Your task to perform on an android device: open sync settings in chrome Image 0: 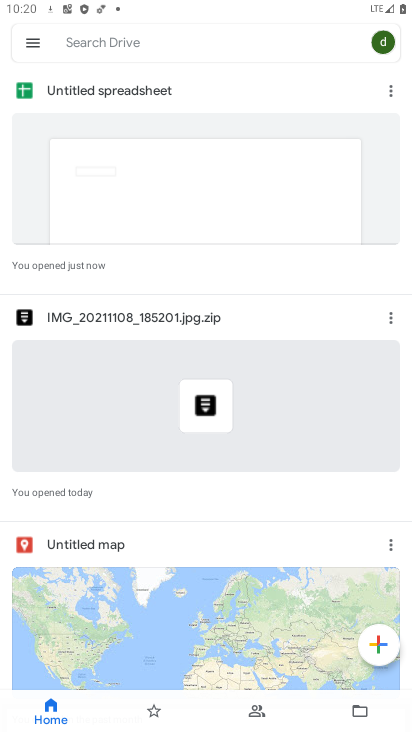
Step 0: press home button
Your task to perform on an android device: open sync settings in chrome Image 1: 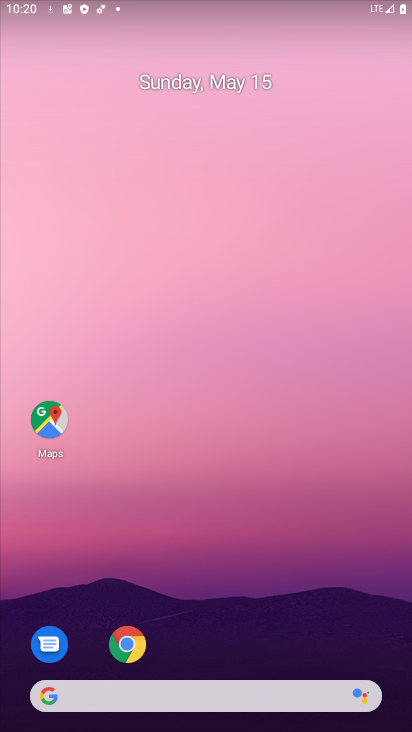
Step 1: drag from (289, 709) to (268, 268)
Your task to perform on an android device: open sync settings in chrome Image 2: 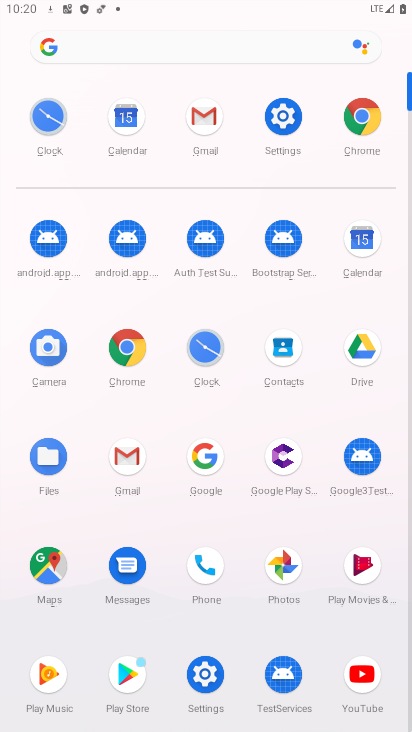
Step 2: click (351, 120)
Your task to perform on an android device: open sync settings in chrome Image 3: 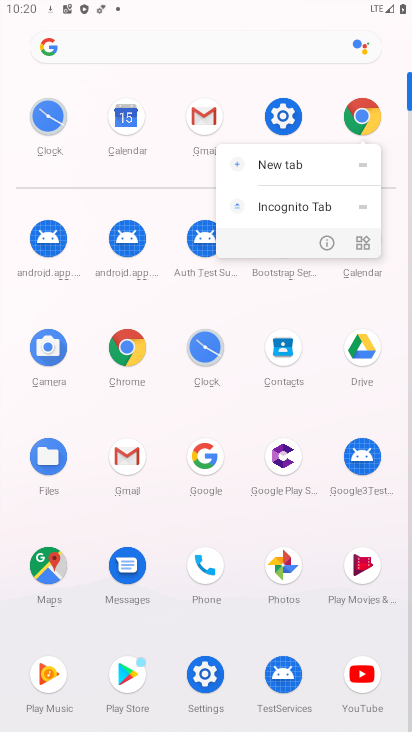
Step 3: click (355, 123)
Your task to perform on an android device: open sync settings in chrome Image 4: 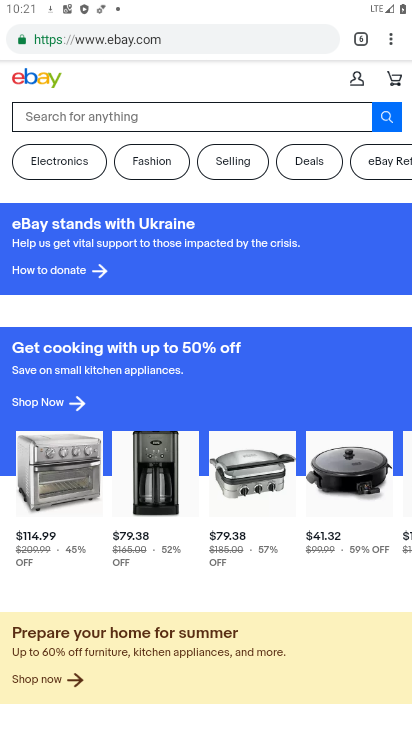
Step 4: click (388, 54)
Your task to perform on an android device: open sync settings in chrome Image 5: 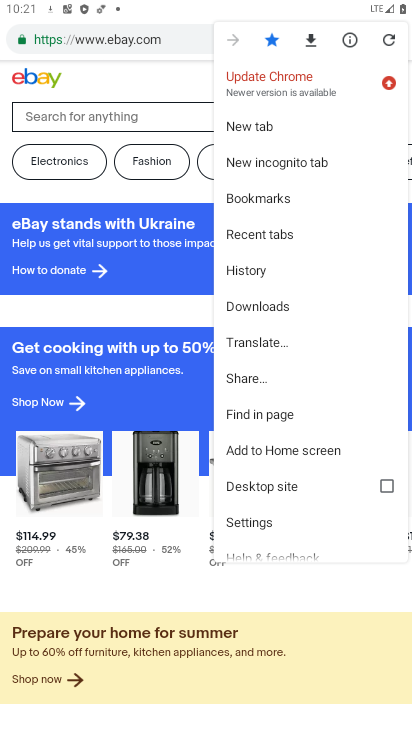
Step 5: click (262, 522)
Your task to perform on an android device: open sync settings in chrome Image 6: 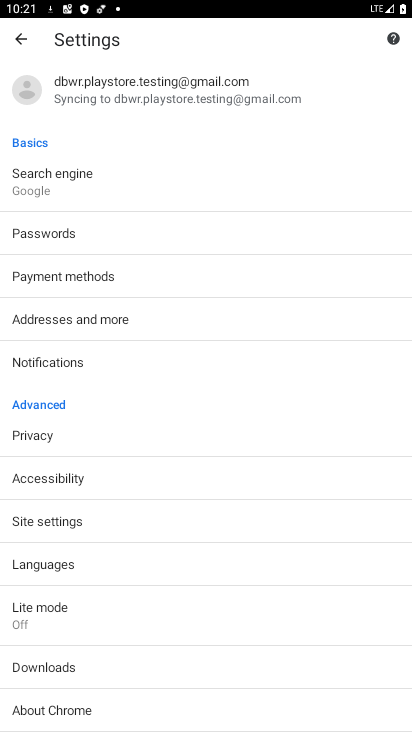
Step 6: click (58, 517)
Your task to perform on an android device: open sync settings in chrome Image 7: 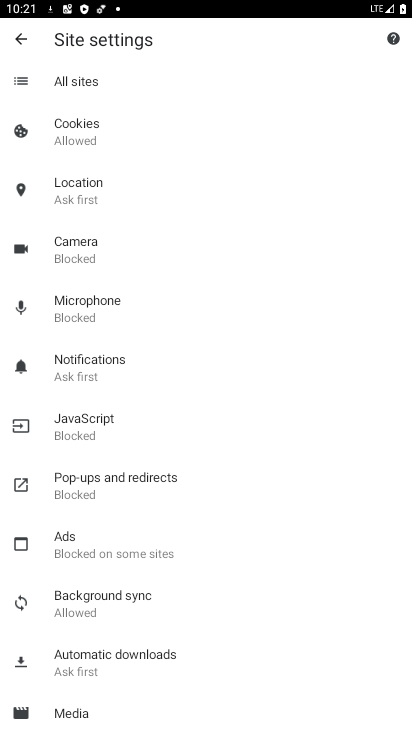
Step 7: click (107, 603)
Your task to perform on an android device: open sync settings in chrome Image 8: 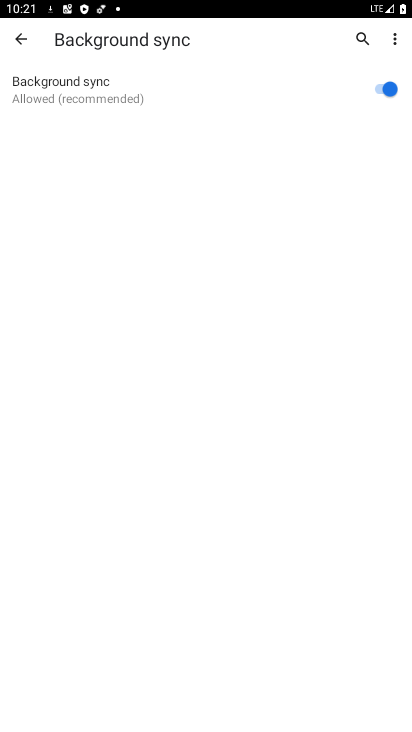
Step 8: task complete